Your task to perform on an android device: Go to Reddit.com Image 0: 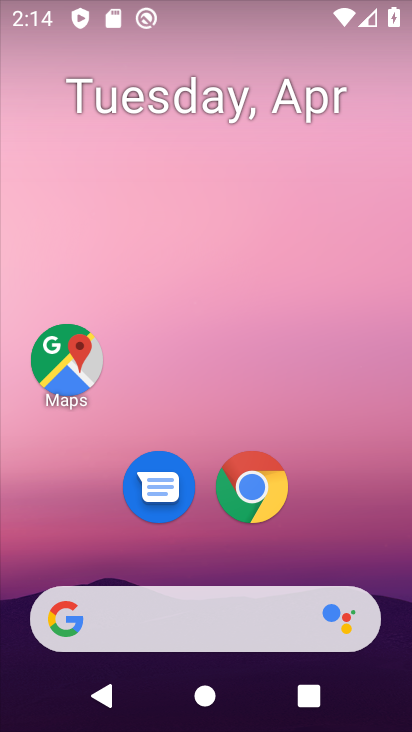
Step 0: click (222, 514)
Your task to perform on an android device: Go to Reddit.com Image 1: 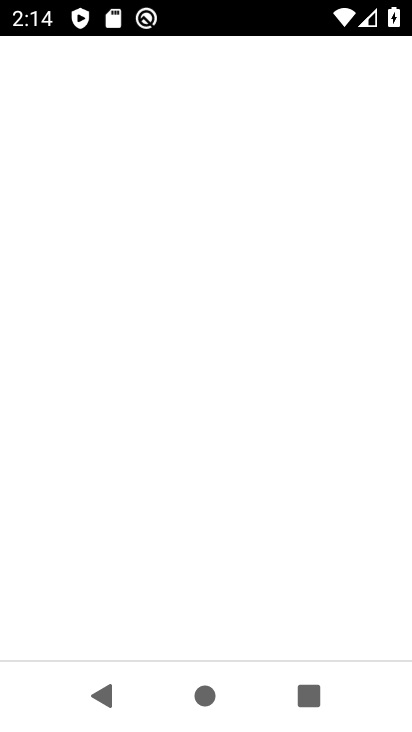
Step 1: click (258, 503)
Your task to perform on an android device: Go to Reddit.com Image 2: 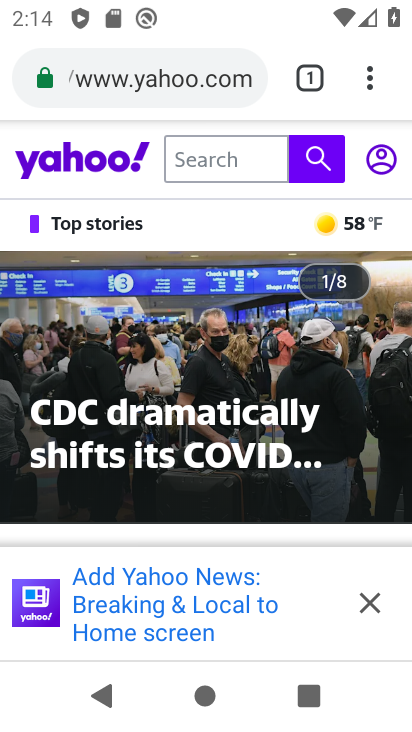
Step 2: click (203, 79)
Your task to perform on an android device: Go to Reddit.com Image 3: 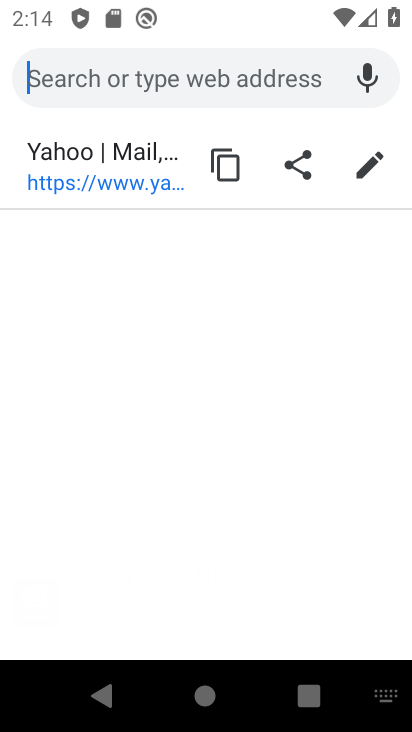
Step 3: type "Reddit.com"
Your task to perform on an android device: Go to Reddit.com Image 4: 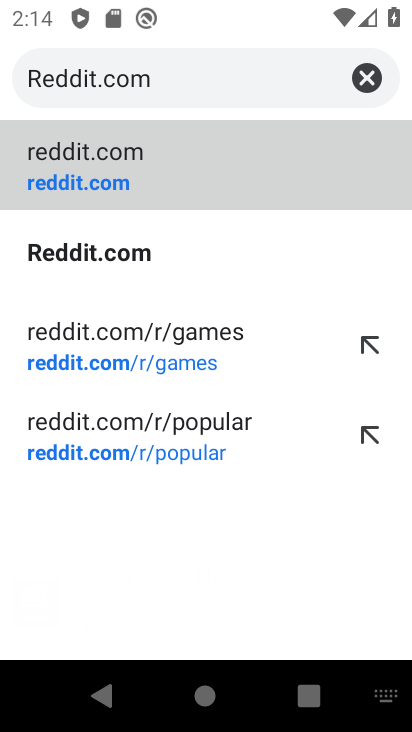
Step 4: click (161, 169)
Your task to perform on an android device: Go to Reddit.com Image 5: 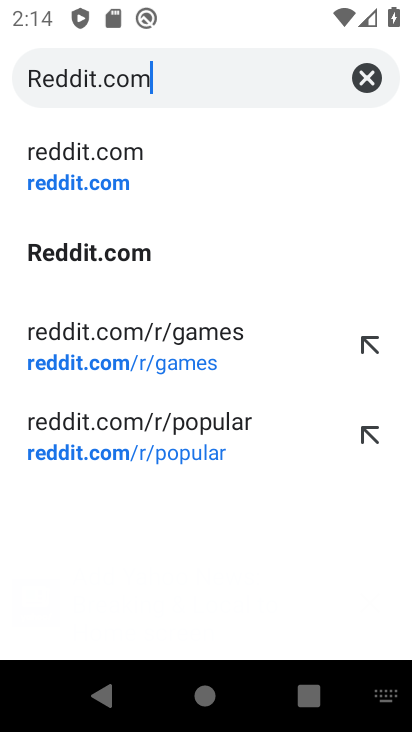
Step 5: click (131, 179)
Your task to perform on an android device: Go to Reddit.com Image 6: 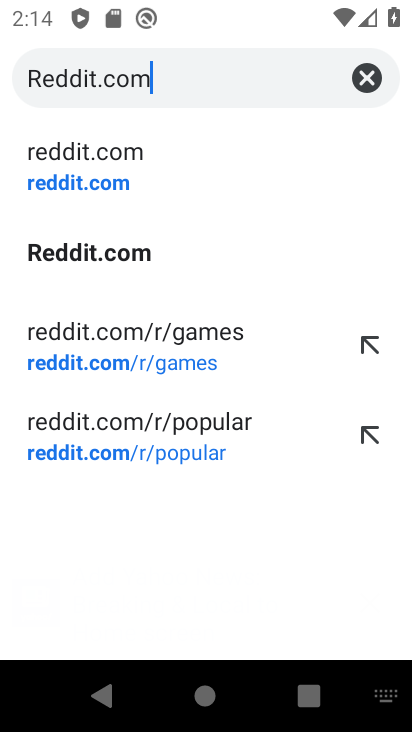
Step 6: click (76, 182)
Your task to perform on an android device: Go to Reddit.com Image 7: 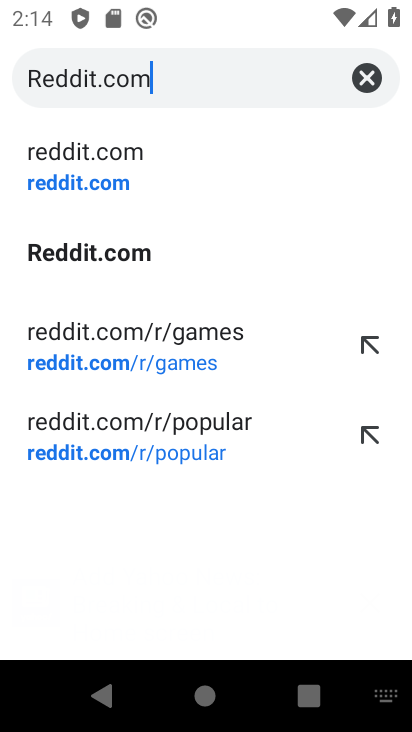
Step 7: click (69, 255)
Your task to perform on an android device: Go to Reddit.com Image 8: 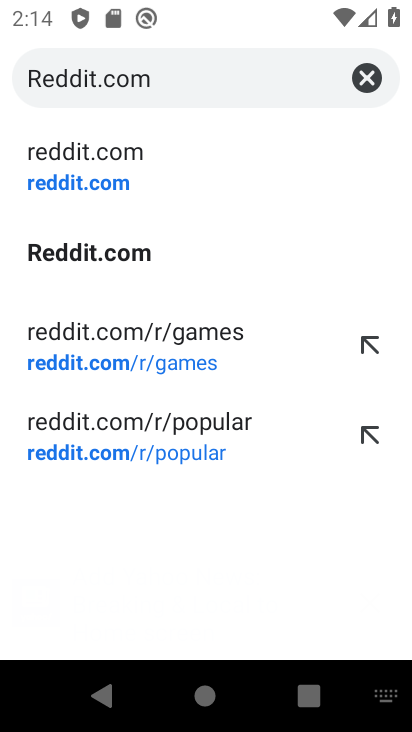
Step 8: click (90, 179)
Your task to perform on an android device: Go to Reddit.com Image 9: 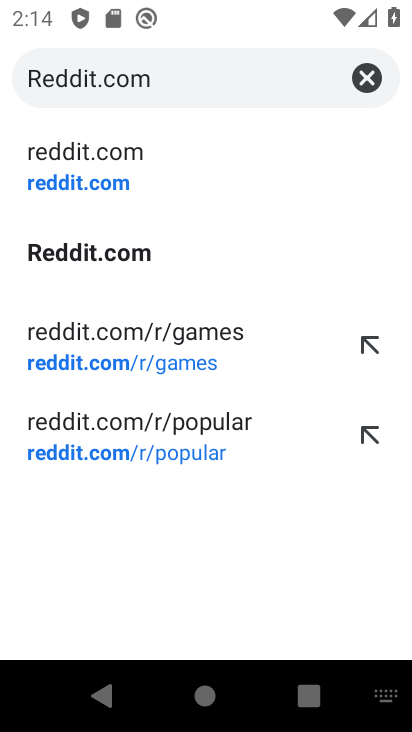
Step 9: click (97, 178)
Your task to perform on an android device: Go to Reddit.com Image 10: 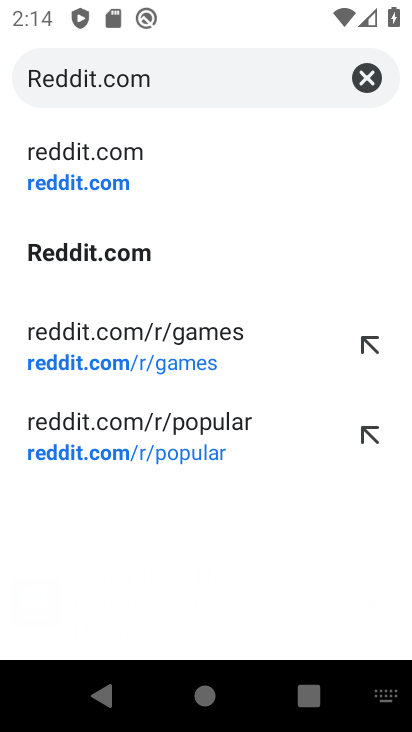
Step 10: click (84, 190)
Your task to perform on an android device: Go to Reddit.com Image 11: 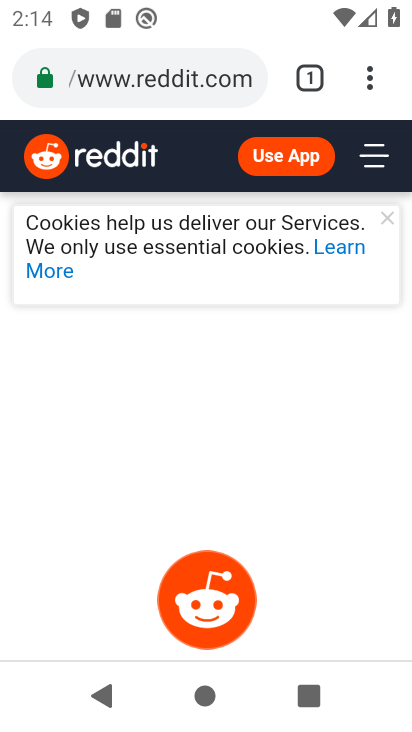
Step 11: task complete